Your task to perform on an android device: Open calendar and show me the third week of next month Image 0: 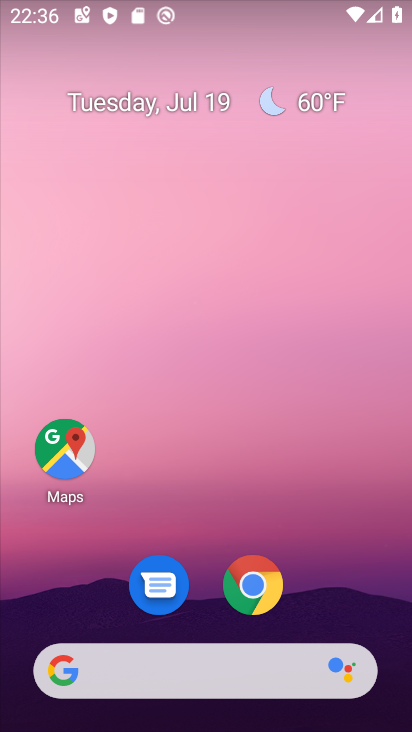
Step 0: drag from (355, 551) to (322, 85)
Your task to perform on an android device: Open calendar and show me the third week of next month Image 1: 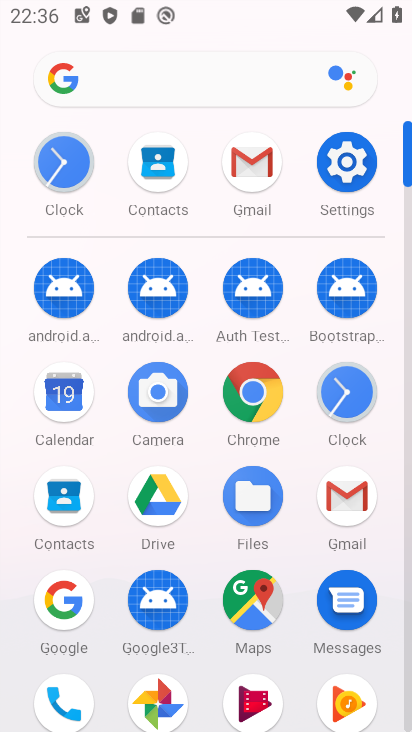
Step 1: click (66, 410)
Your task to perform on an android device: Open calendar and show me the third week of next month Image 2: 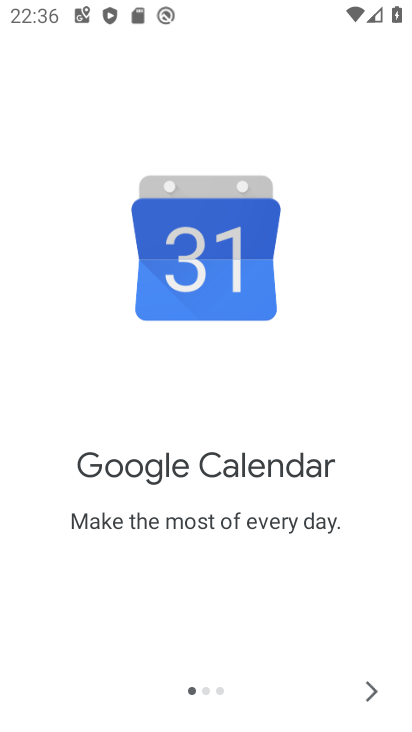
Step 2: click (376, 689)
Your task to perform on an android device: Open calendar and show me the third week of next month Image 3: 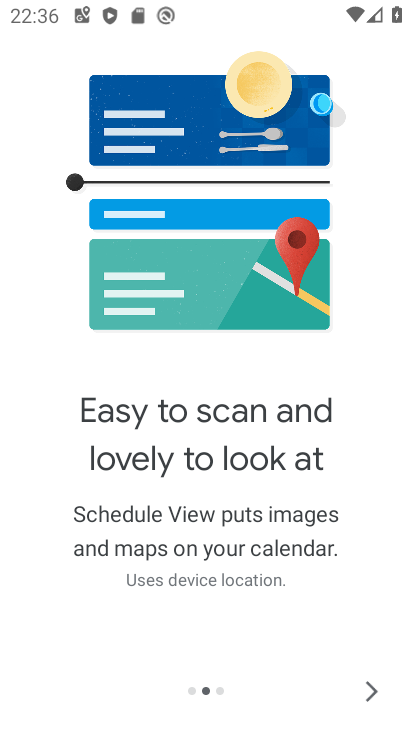
Step 3: click (376, 689)
Your task to perform on an android device: Open calendar and show me the third week of next month Image 4: 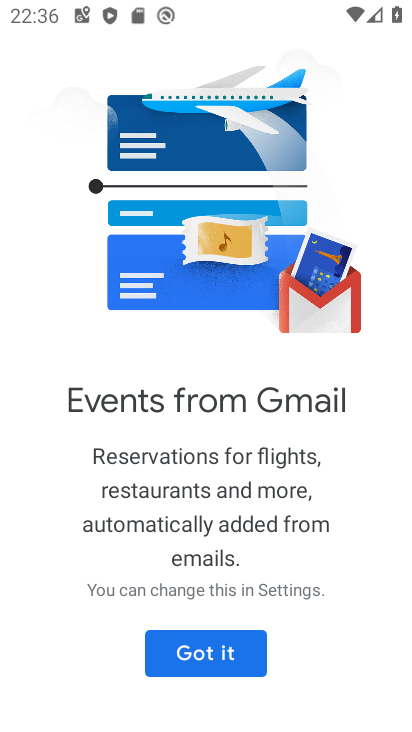
Step 4: click (246, 663)
Your task to perform on an android device: Open calendar and show me the third week of next month Image 5: 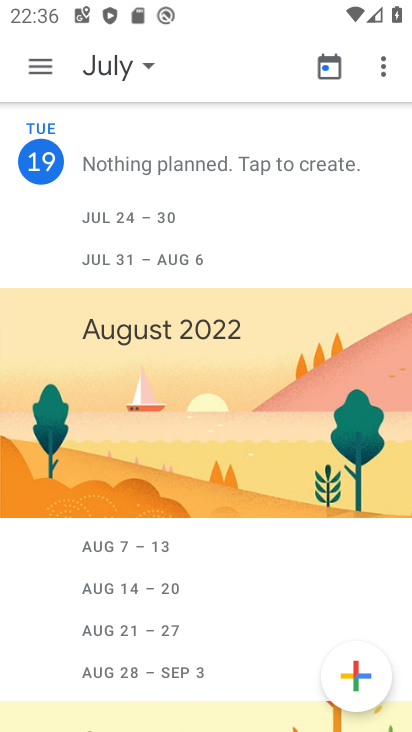
Step 5: click (38, 64)
Your task to perform on an android device: Open calendar and show me the third week of next month Image 6: 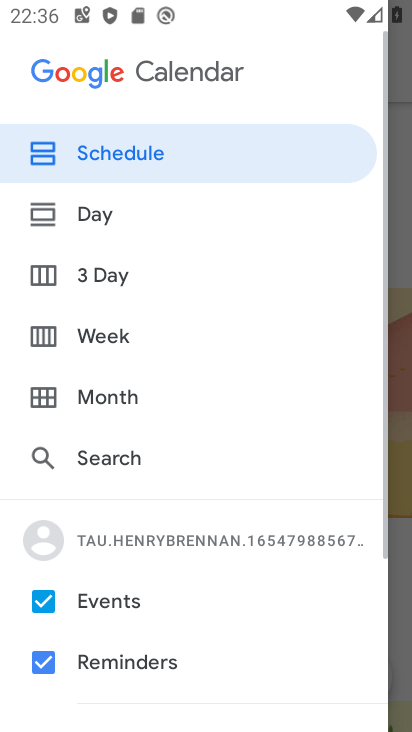
Step 6: click (36, 336)
Your task to perform on an android device: Open calendar and show me the third week of next month Image 7: 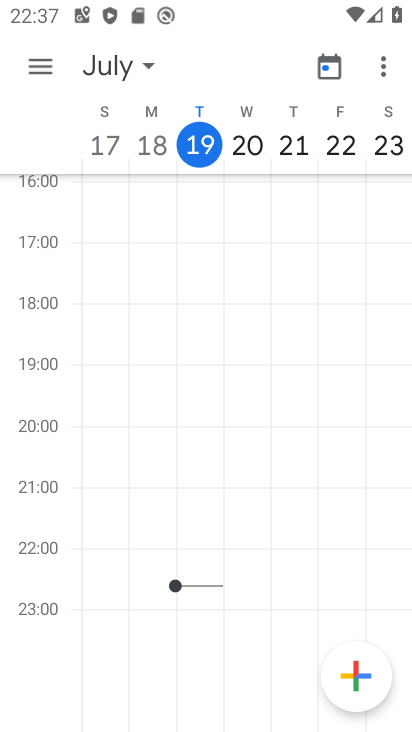
Step 7: task complete